Your task to perform on an android device: Do I have any events this weekend? Image 0: 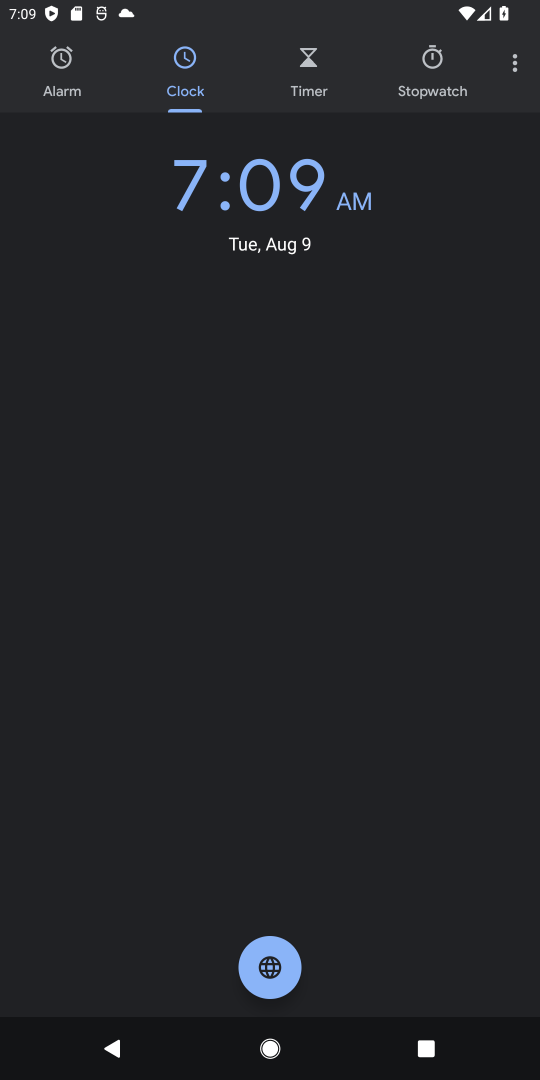
Step 0: press home button
Your task to perform on an android device: Do I have any events this weekend? Image 1: 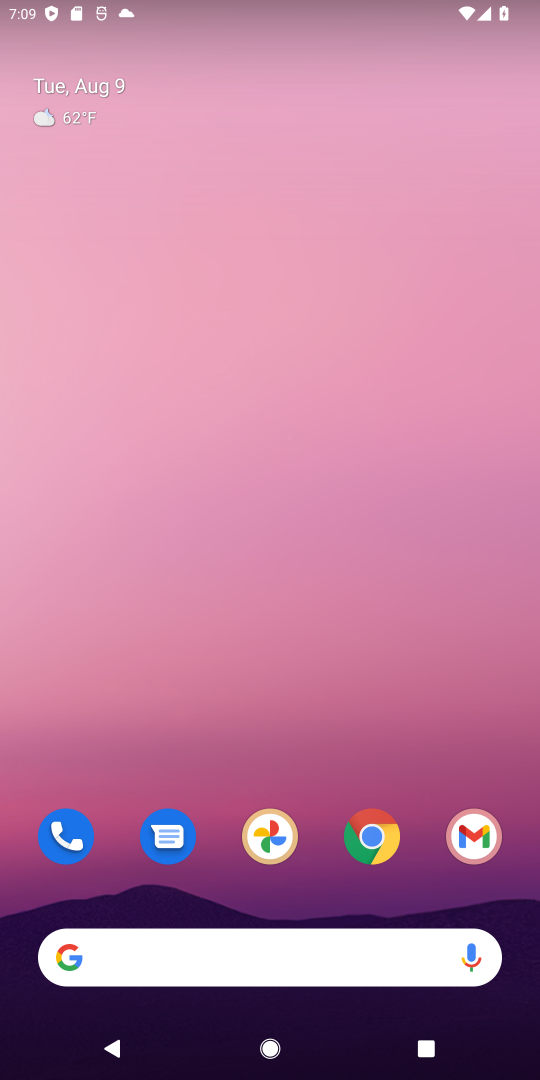
Step 1: drag from (201, 861) to (143, 202)
Your task to perform on an android device: Do I have any events this weekend? Image 2: 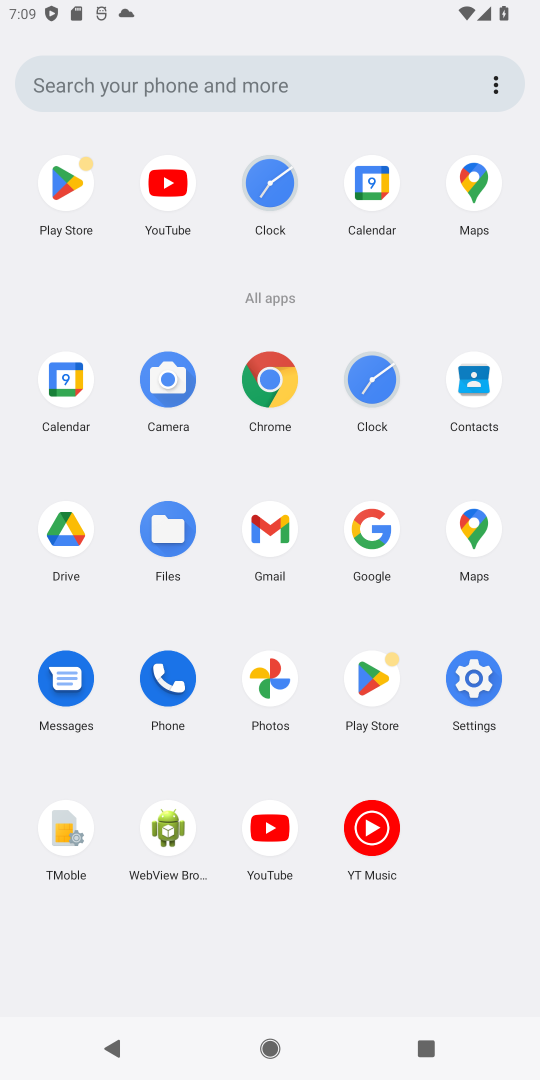
Step 2: click (52, 388)
Your task to perform on an android device: Do I have any events this weekend? Image 3: 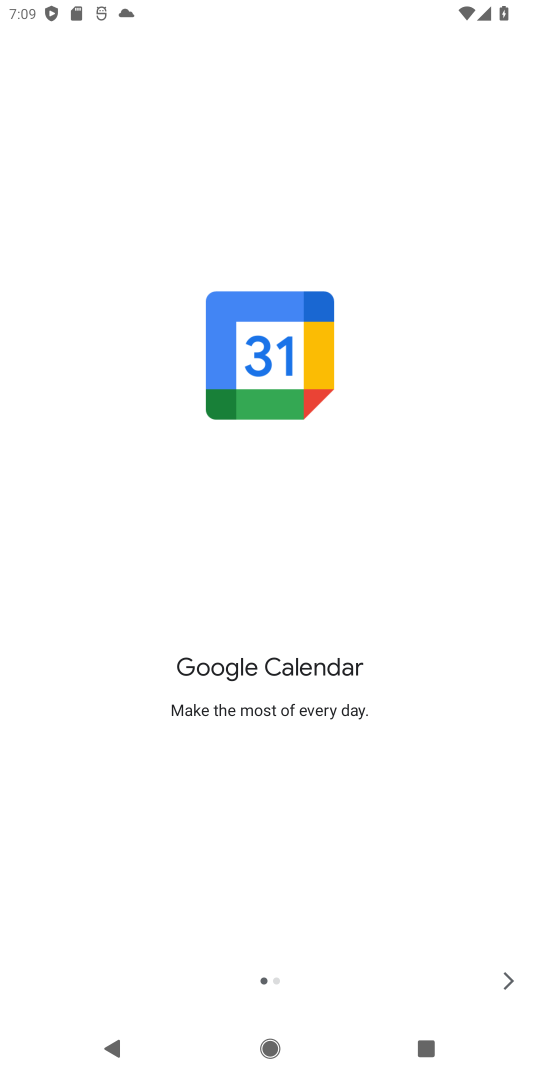
Step 3: click (499, 983)
Your task to perform on an android device: Do I have any events this weekend? Image 4: 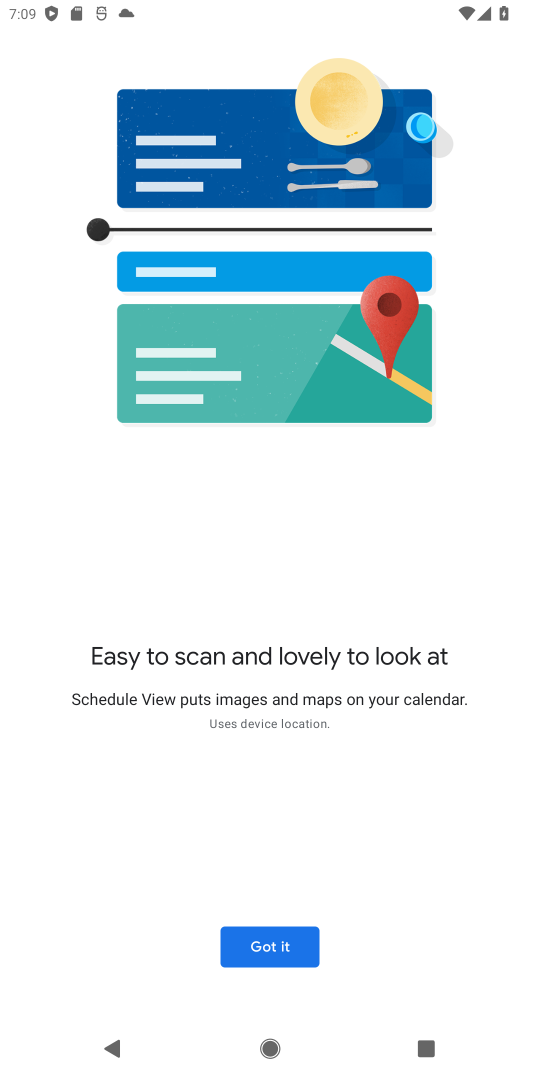
Step 4: click (511, 990)
Your task to perform on an android device: Do I have any events this weekend? Image 5: 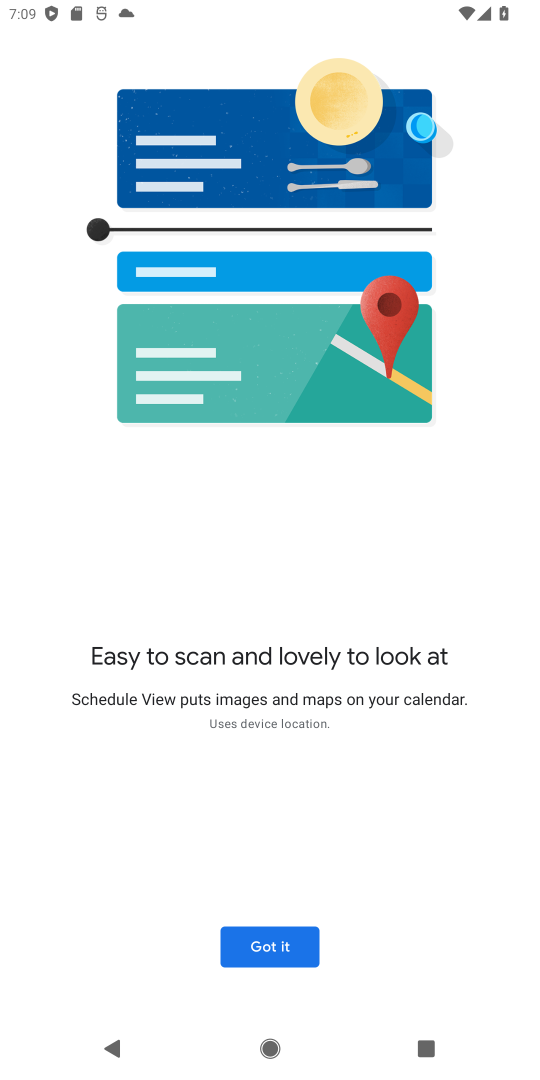
Step 5: click (256, 947)
Your task to perform on an android device: Do I have any events this weekend? Image 6: 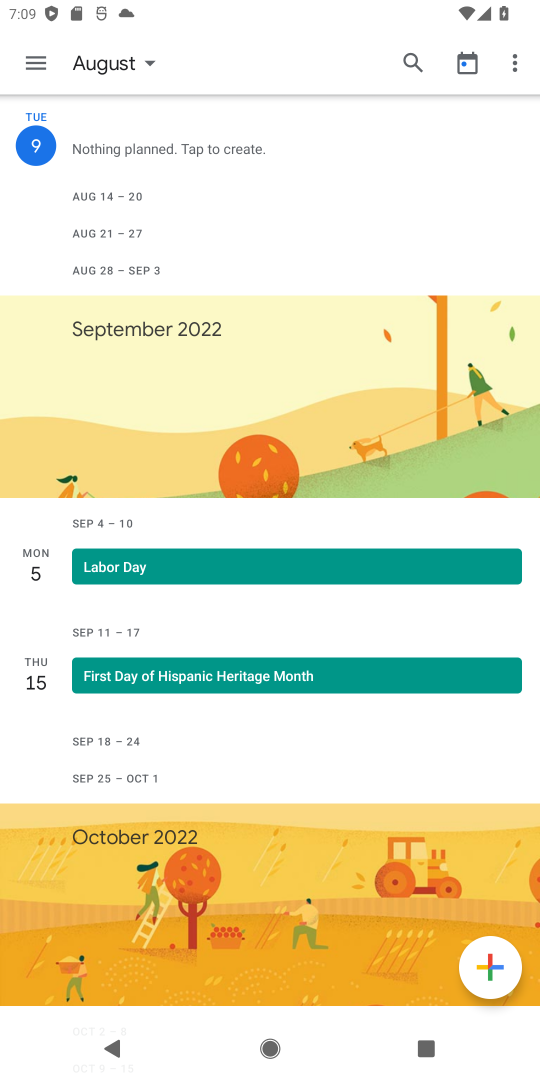
Step 6: click (96, 59)
Your task to perform on an android device: Do I have any events this weekend? Image 7: 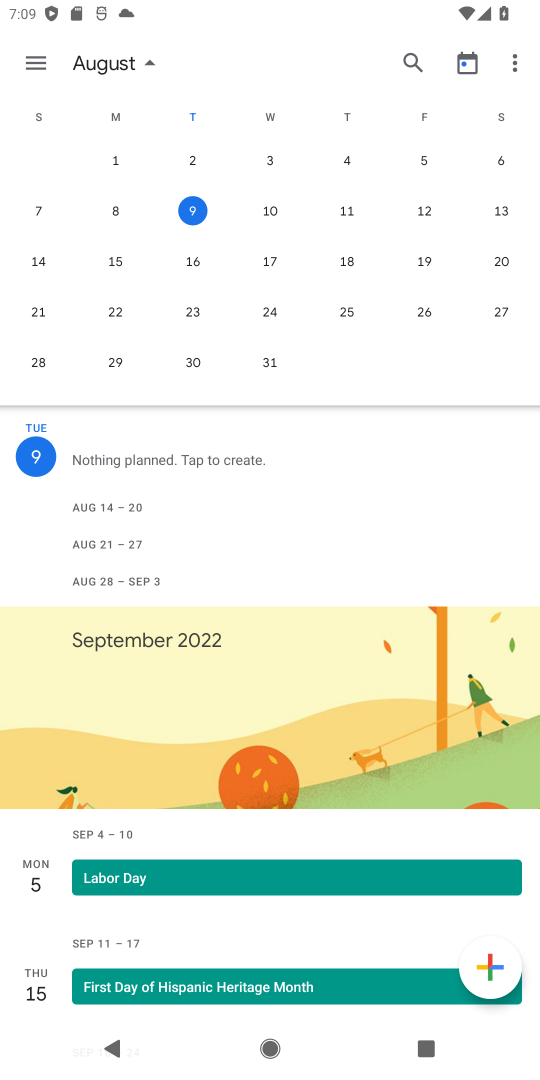
Step 7: click (115, 69)
Your task to perform on an android device: Do I have any events this weekend? Image 8: 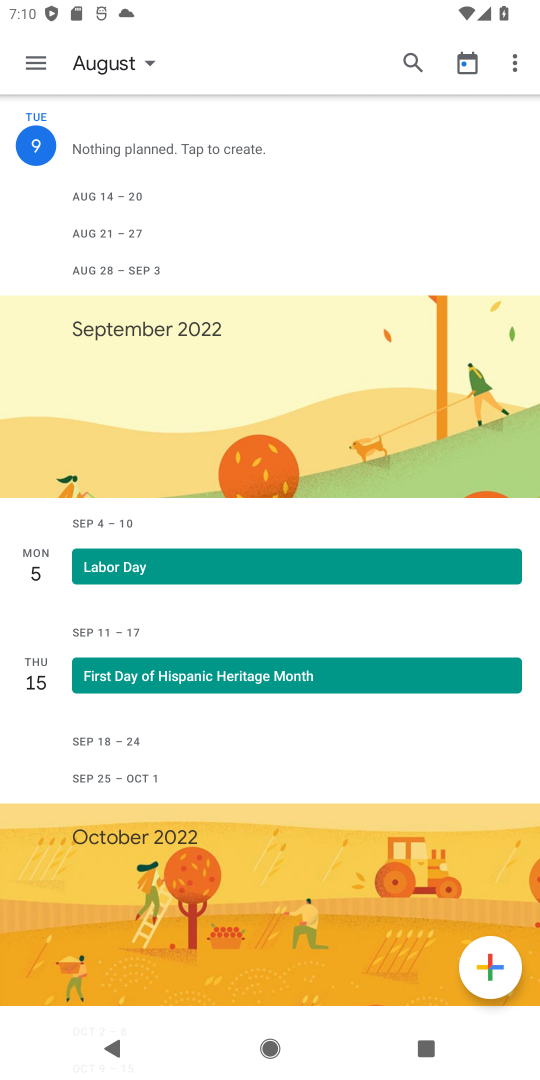
Step 8: click (109, 67)
Your task to perform on an android device: Do I have any events this weekend? Image 9: 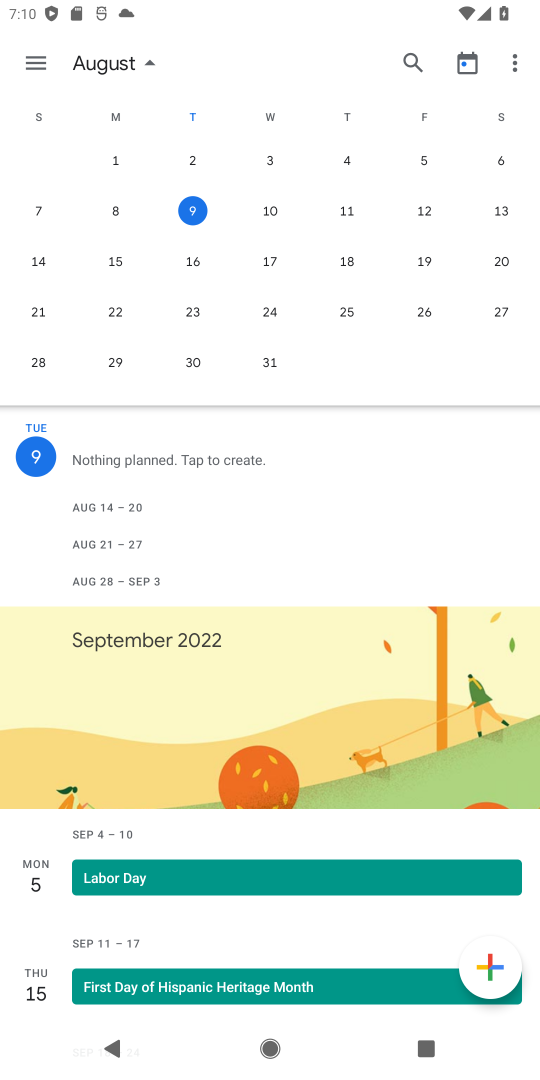
Step 9: task complete